Your task to perform on an android device: Check the news Image 0: 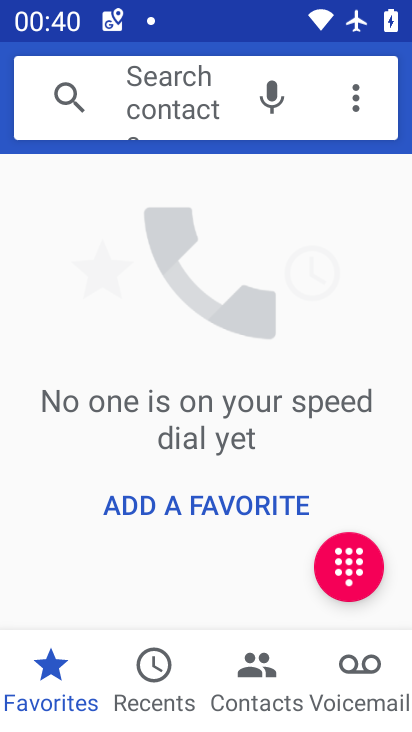
Step 0: press home button
Your task to perform on an android device: Check the news Image 1: 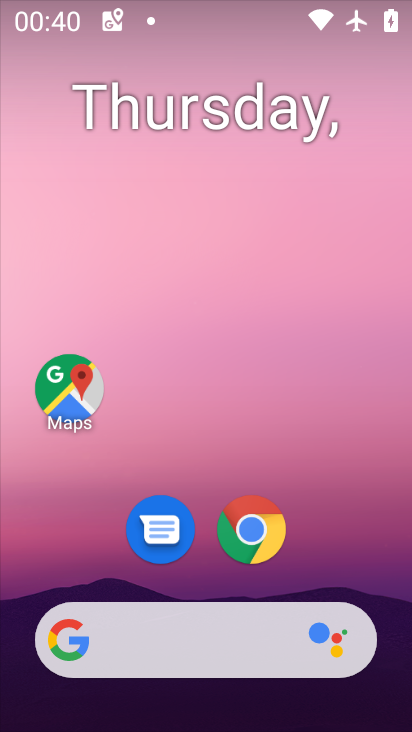
Step 1: task complete